Your task to perform on an android device: set the stopwatch Image 0: 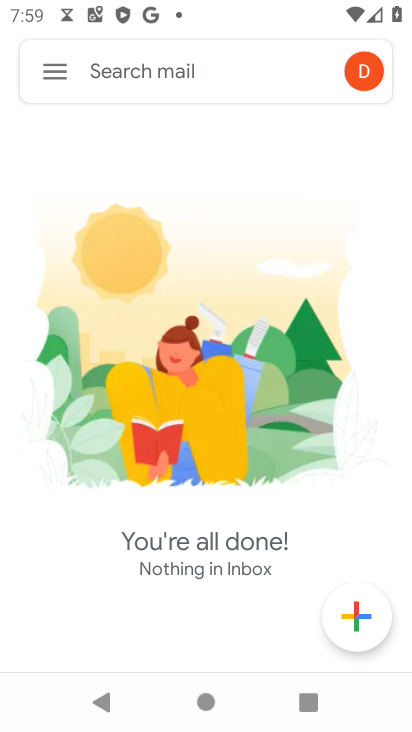
Step 0: press home button
Your task to perform on an android device: set the stopwatch Image 1: 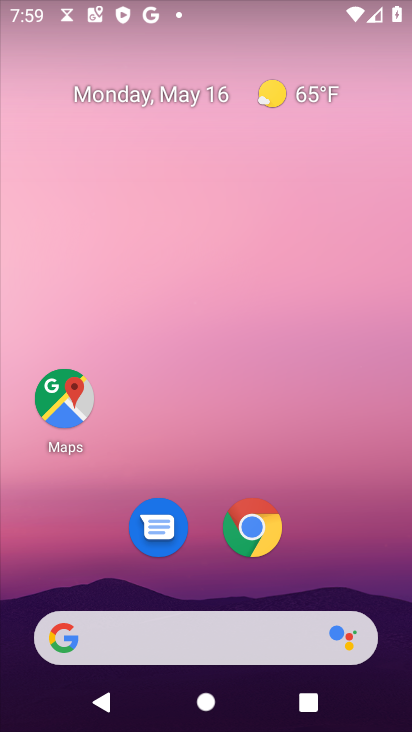
Step 1: drag from (337, 550) to (350, 189)
Your task to perform on an android device: set the stopwatch Image 2: 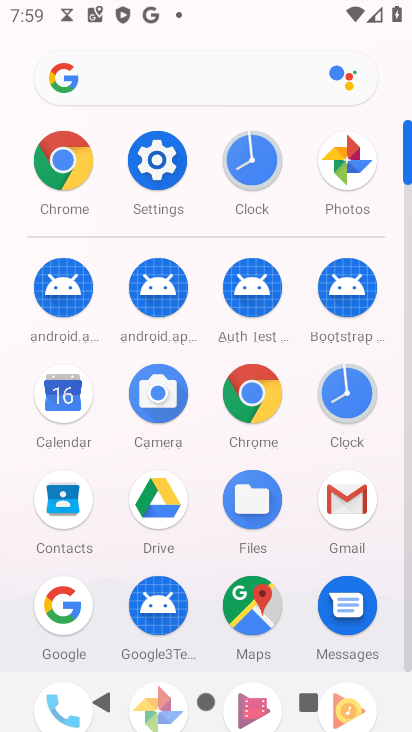
Step 2: click (336, 378)
Your task to perform on an android device: set the stopwatch Image 3: 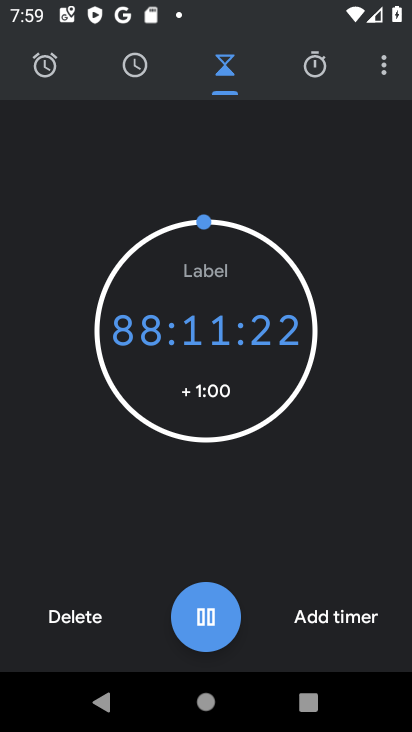
Step 3: click (290, 57)
Your task to perform on an android device: set the stopwatch Image 4: 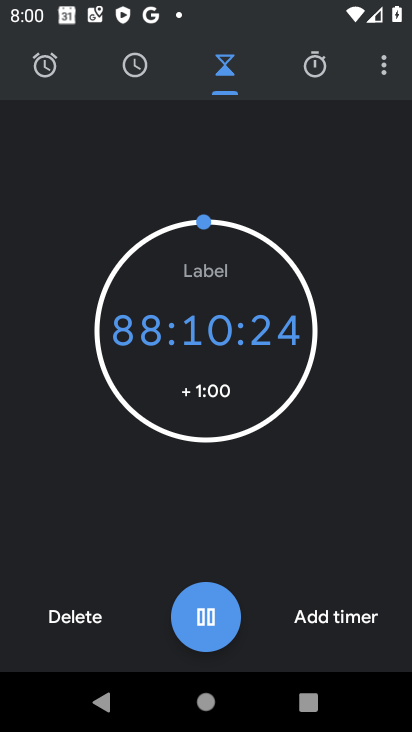
Step 4: task complete